Your task to perform on an android device: turn off airplane mode Image 0: 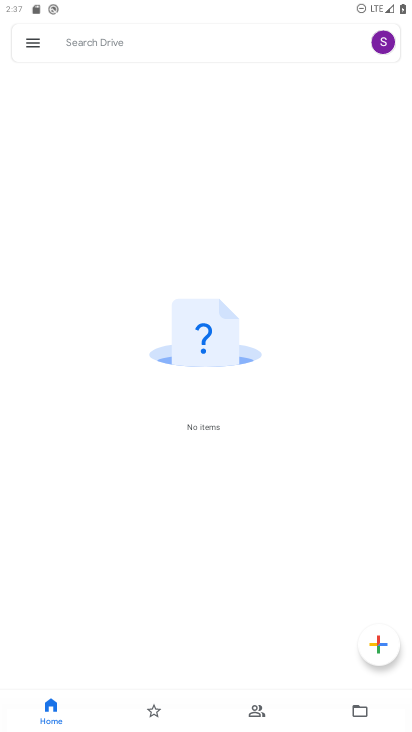
Step 0: press home button
Your task to perform on an android device: turn off airplane mode Image 1: 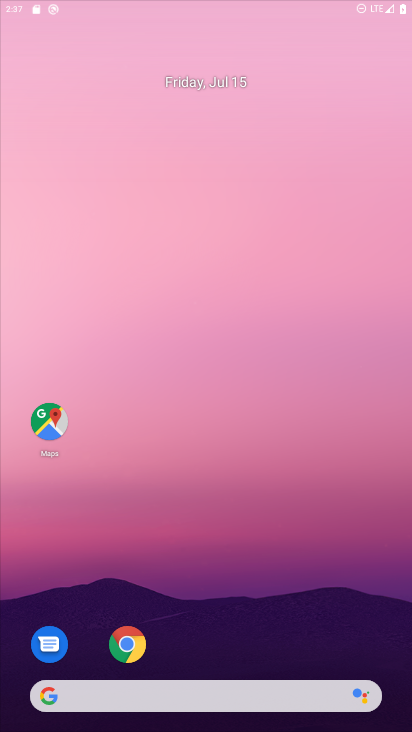
Step 1: task complete